Your task to perform on an android device: Open location settings Image 0: 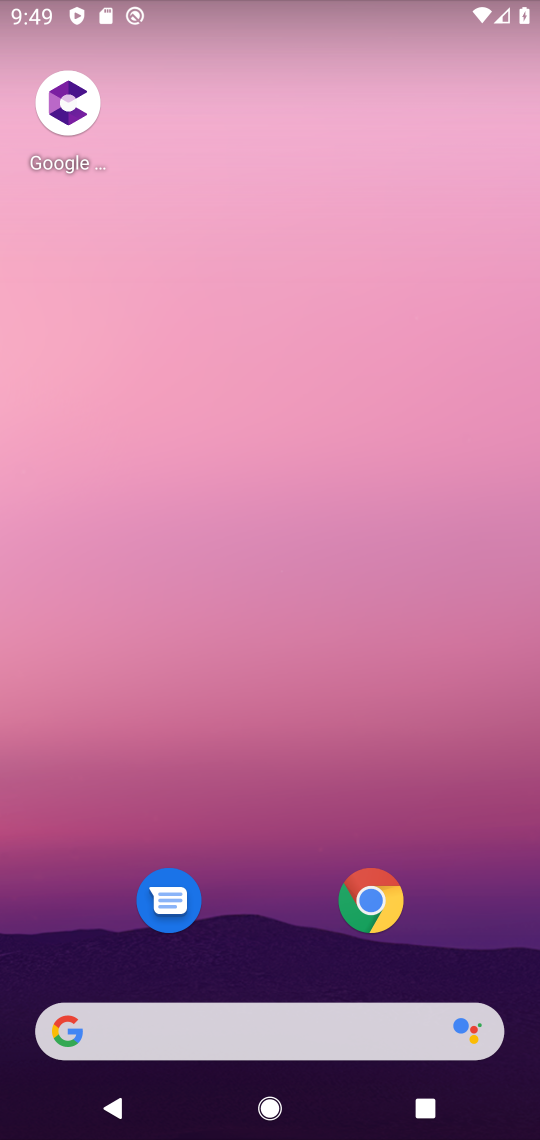
Step 0: drag from (485, 958) to (373, 90)
Your task to perform on an android device: Open location settings Image 1: 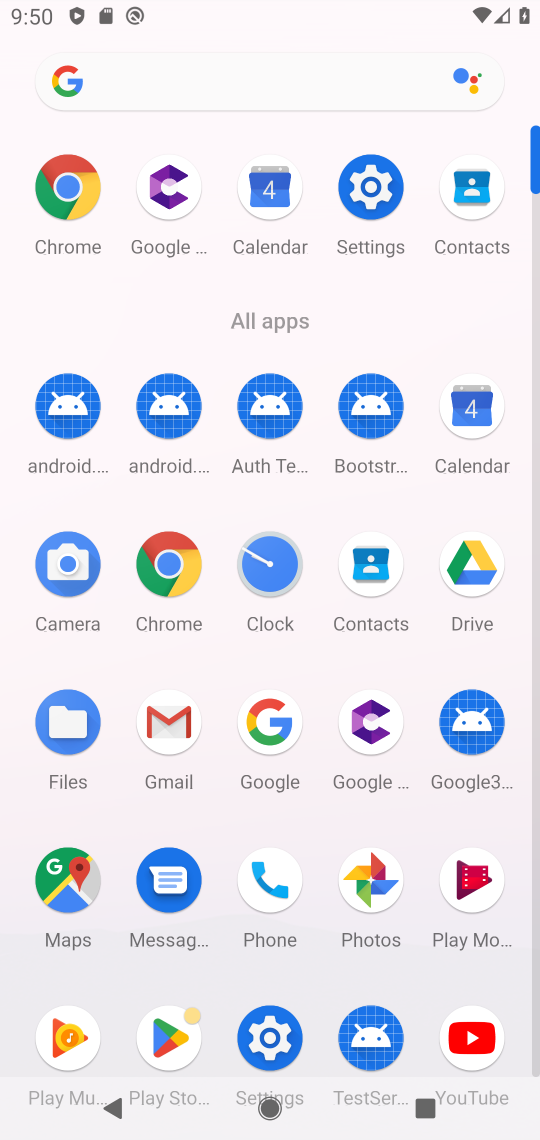
Step 1: click (398, 192)
Your task to perform on an android device: Open location settings Image 2: 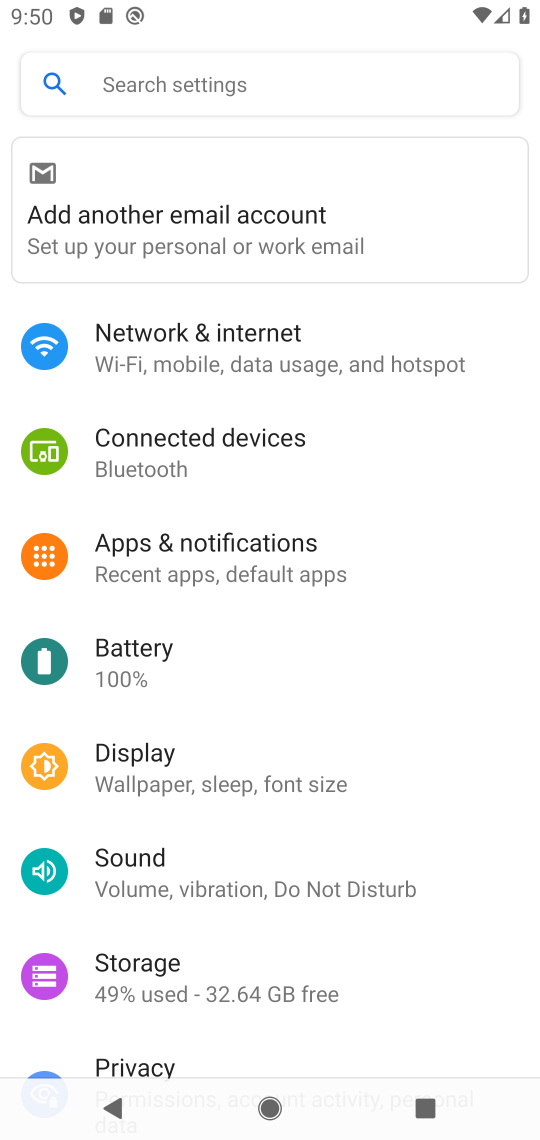
Step 2: drag from (252, 998) to (156, 242)
Your task to perform on an android device: Open location settings Image 3: 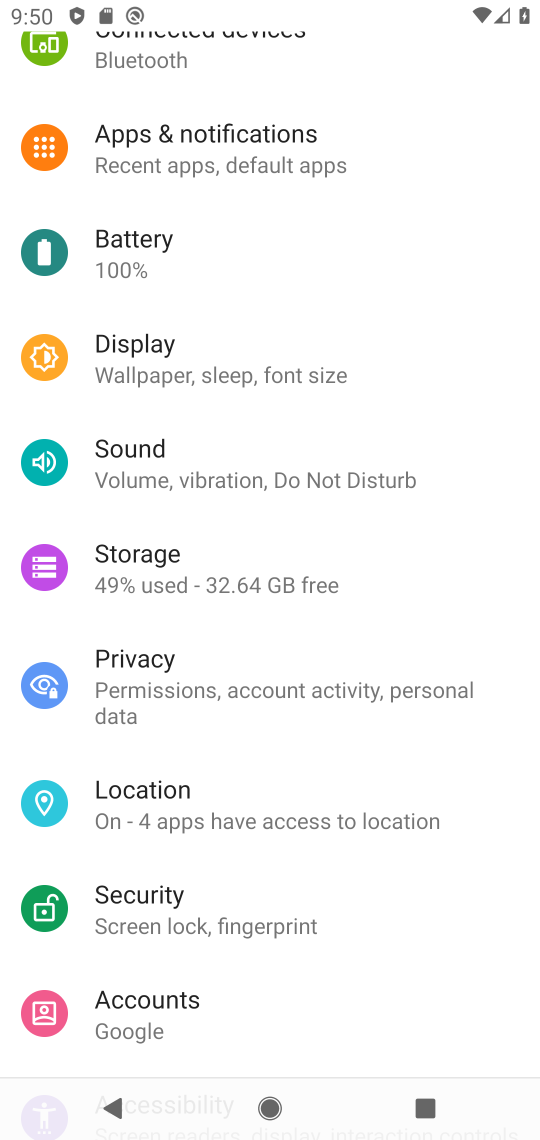
Step 3: click (306, 799)
Your task to perform on an android device: Open location settings Image 4: 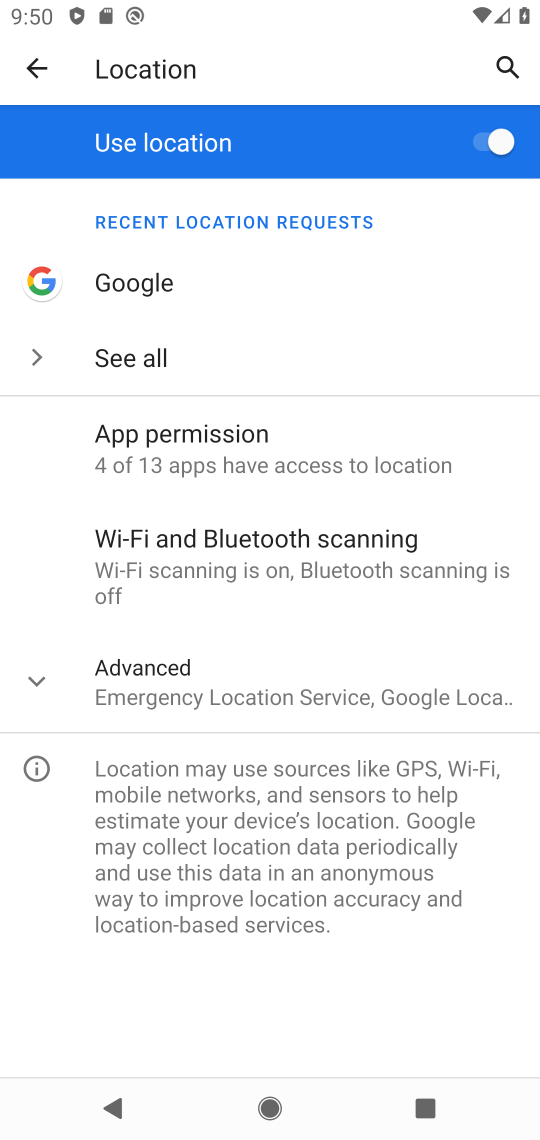
Step 4: task complete